Your task to perform on an android device: Open Google Maps and go to "Timeline" Image 0: 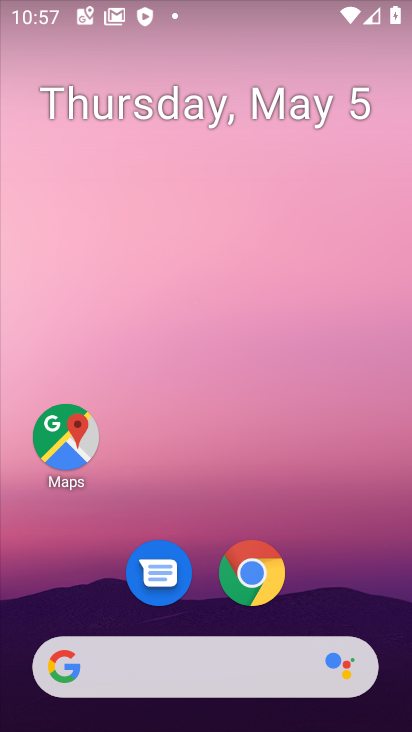
Step 0: drag from (339, 607) to (329, 267)
Your task to perform on an android device: Open Google Maps and go to "Timeline" Image 1: 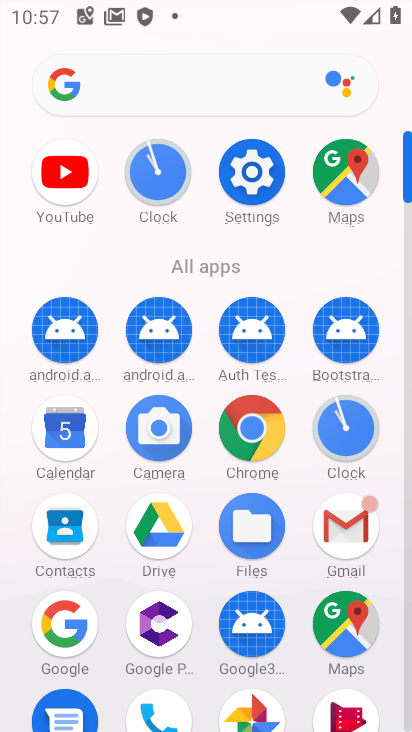
Step 1: click (335, 629)
Your task to perform on an android device: Open Google Maps and go to "Timeline" Image 2: 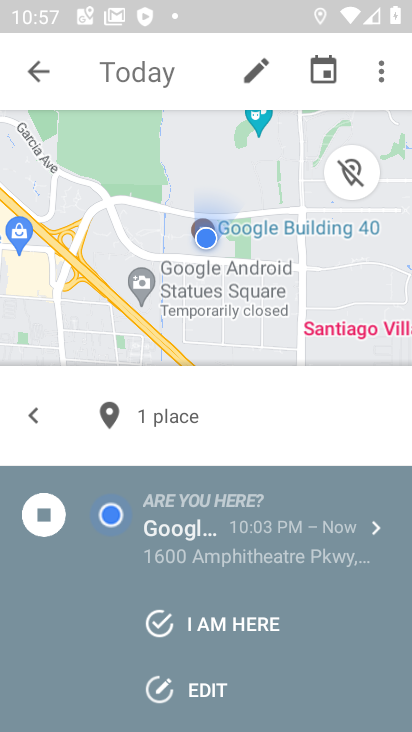
Step 2: click (30, 67)
Your task to perform on an android device: Open Google Maps and go to "Timeline" Image 3: 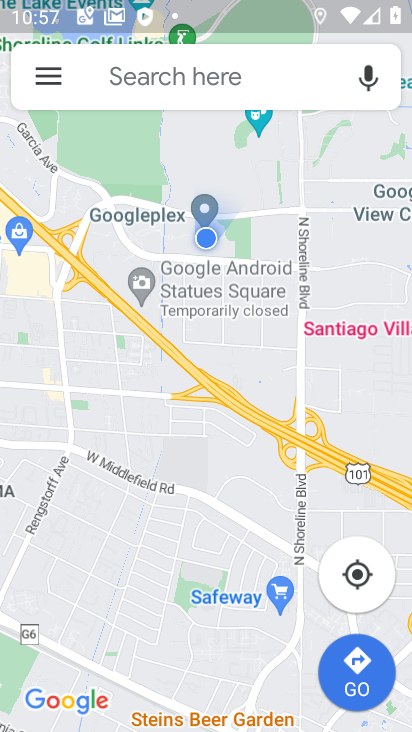
Step 3: click (40, 74)
Your task to perform on an android device: Open Google Maps and go to "Timeline" Image 4: 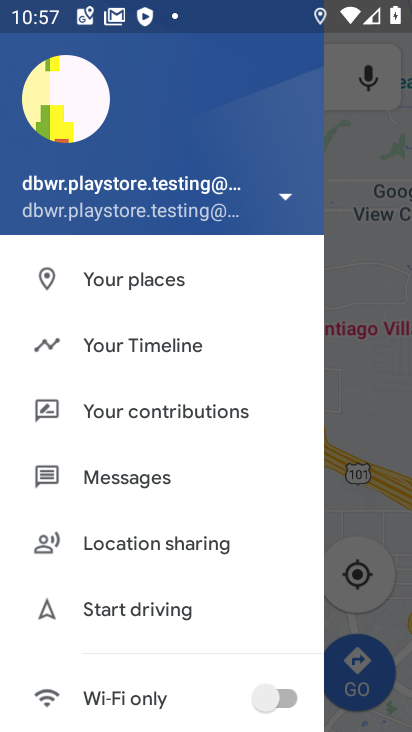
Step 4: click (157, 344)
Your task to perform on an android device: Open Google Maps and go to "Timeline" Image 5: 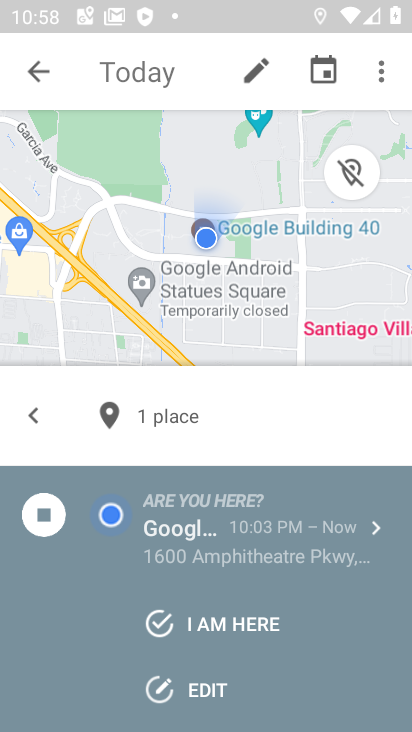
Step 5: task complete